Your task to perform on an android device: Open calendar and show me the second week of next month Image 0: 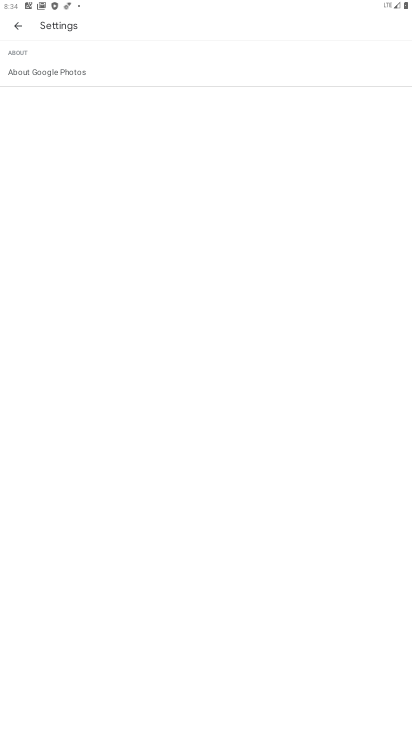
Step 0: press home button
Your task to perform on an android device: Open calendar and show me the second week of next month Image 1: 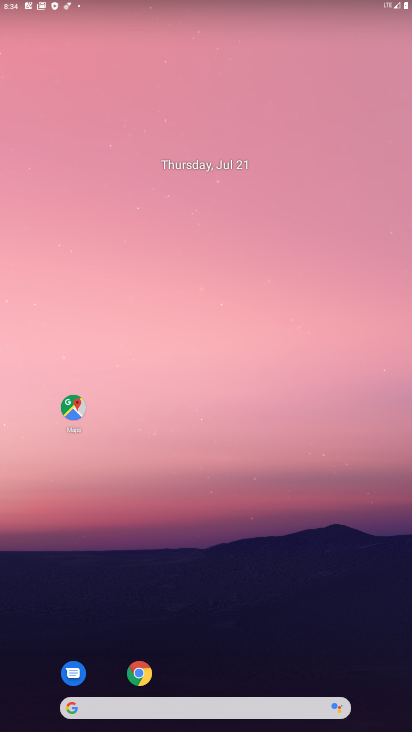
Step 1: drag from (202, 641) to (181, 123)
Your task to perform on an android device: Open calendar and show me the second week of next month Image 2: 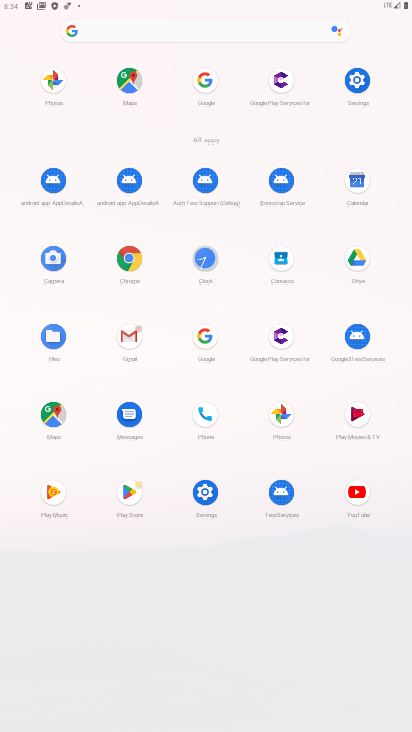
Step 2: click (352, 187)
Your task to perform on an android device: Open calendar and show me the second week of next month Image 3: 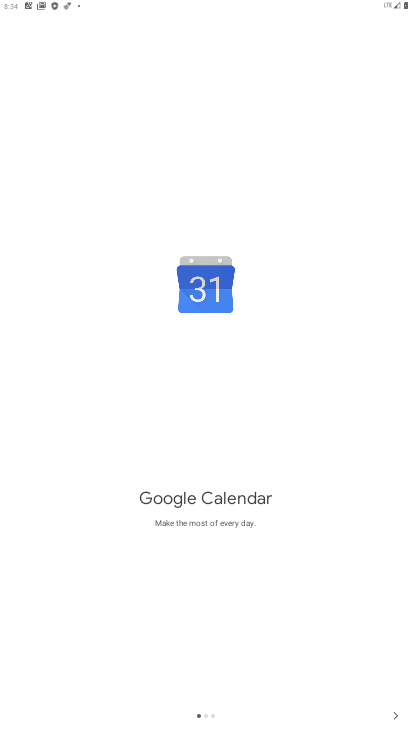
Step 3: click (396, 717)
Your task to perform on an android device: Open calendar and show me the second week of next month Image 4: 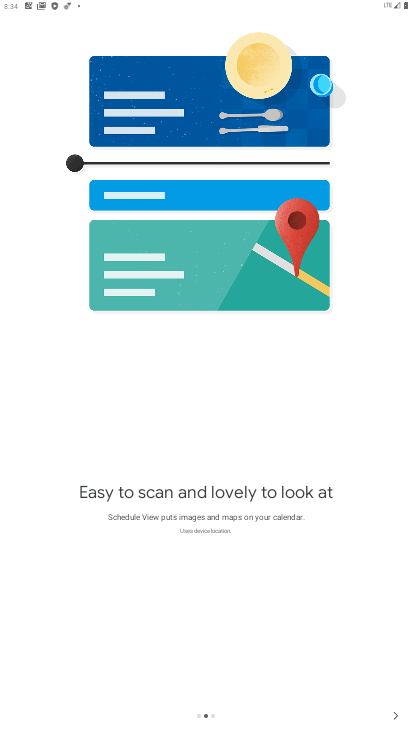
Step 4: click (396, 717)
Your task to perform on an android device: Open calendar and show me the second week of next month Image 5: 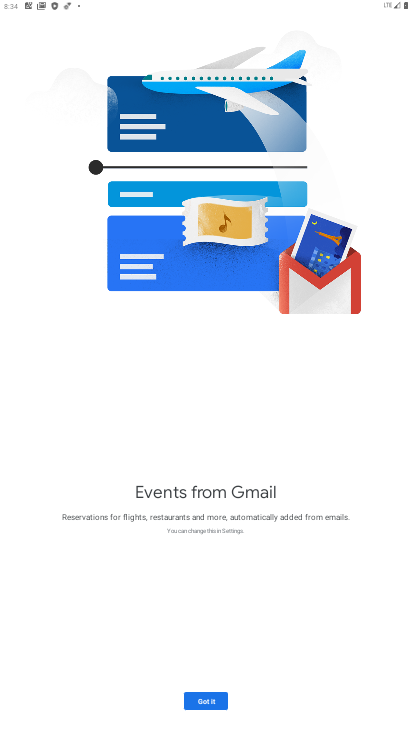
Step 5: click (198, 699)
Your task to perform on an android device: Open calendar and show me the second week of next month Image 6: 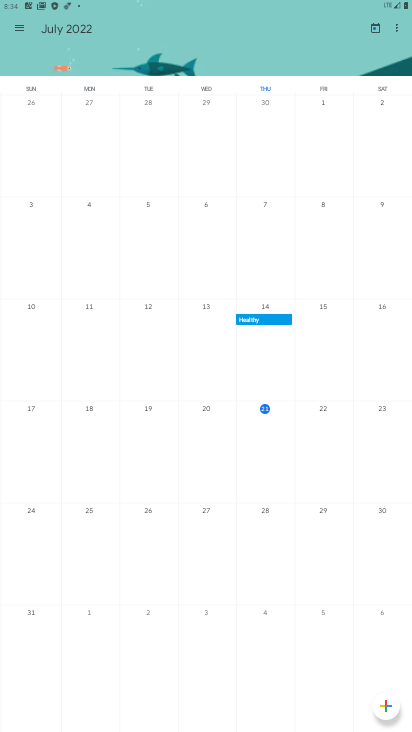
Step 6: drag from (385, 571) to (16, 477)
Your task to perform on an android device: Open calendar and show me the second week of next month Image 7: 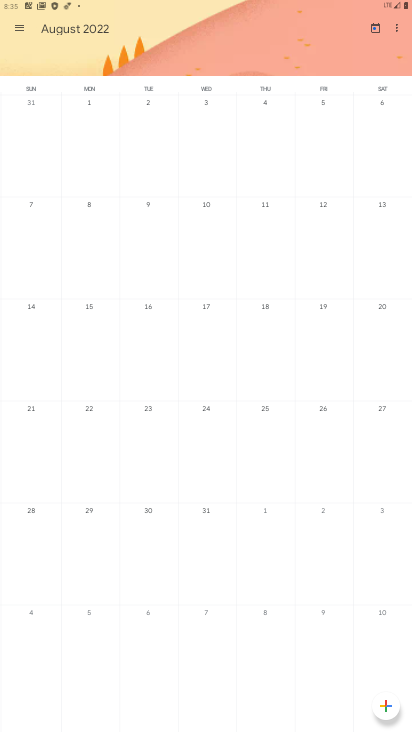
Step 7: click (39, 319)
Your task to perform on an android device: Open calendar and show me the second week of next month Image 8: 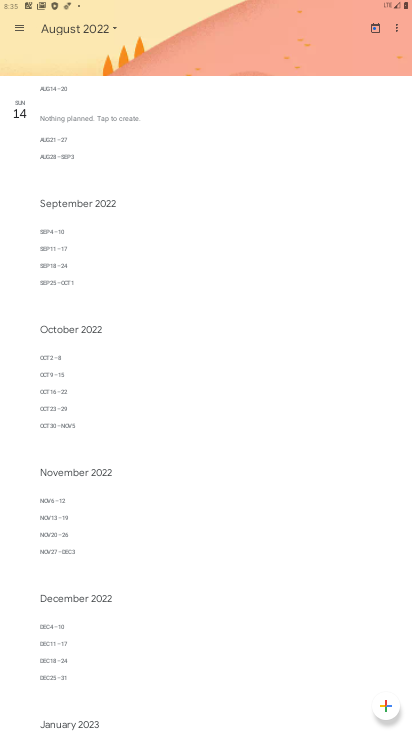
Step 8: task complete